Your task to perform on an android device: turn on translation in the chrome app Image 0: 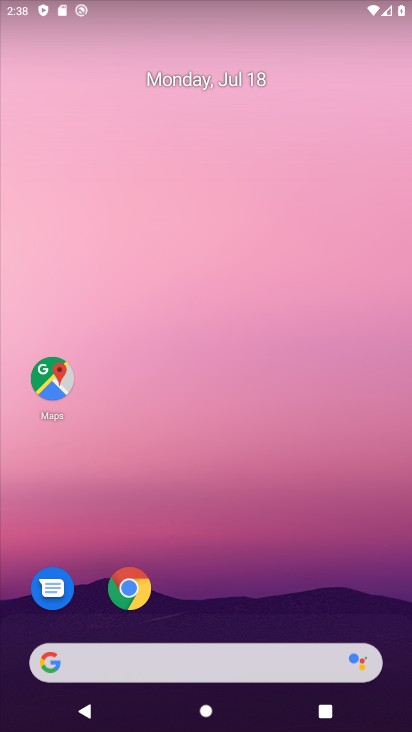
Step 0: drag from (199, 629) to (271, 115)
Your task to perform on an android device: turn on translation in the chrome app Image 1: 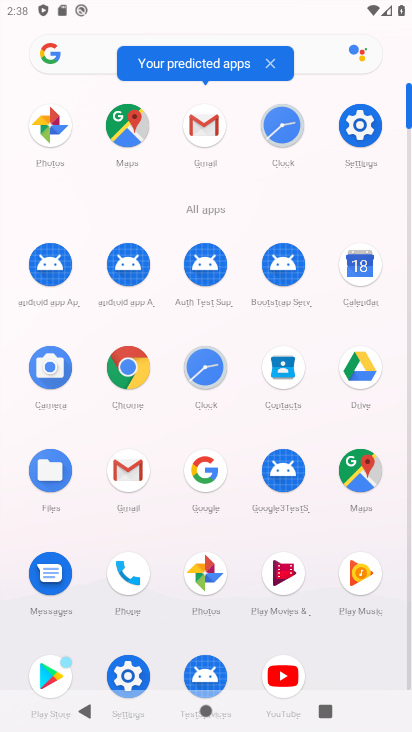
Step 1: click (137, 379)
Your task to perform on an android device: turn on translation in the chrome app Image 2: 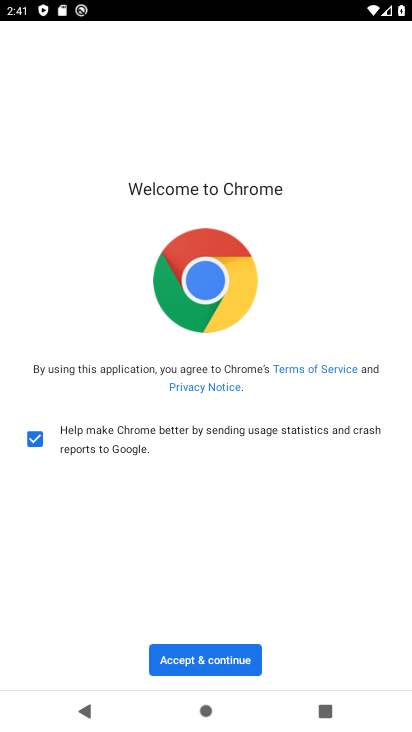
Step 2: task complete